Your task to perform on an android device: Turn off the flashlight Image 0: 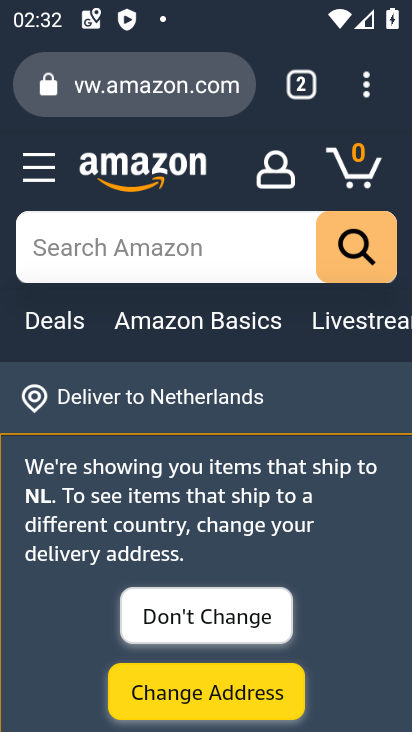
Step 0: press home button
Your task to perform on an android device: Turn off the flashlight Image 1: 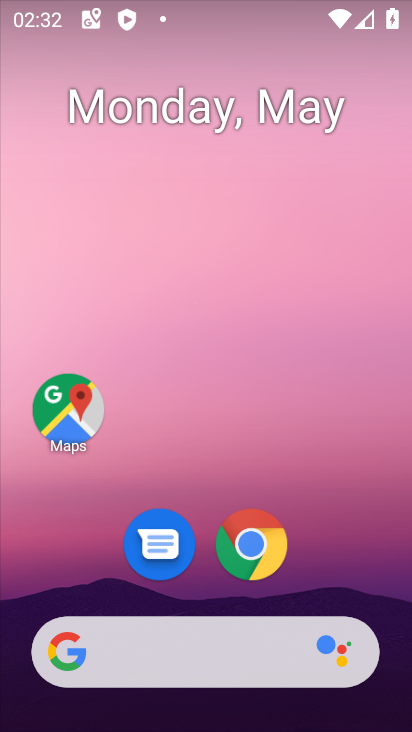
Step 1: drag from (261, 1) to (229, 452)
Your task to perform on an android device: Turn off the flashlight Image 2: 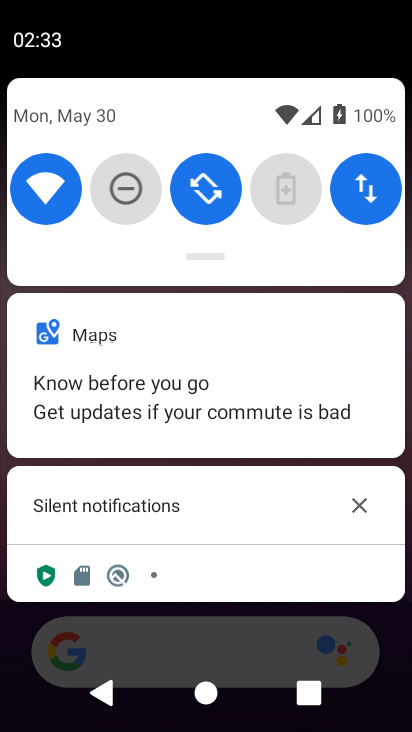
Step 2: drag from (242, 104) to (232, 379)
Your task to perform on an android device: Turn off the flashlight Image 3: 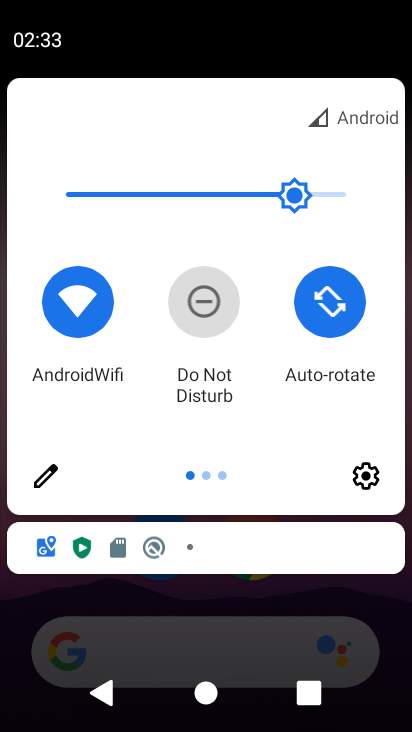
Step 3: click (38, 474)
Your task to perform on an android device: Turn off the flashlight Image 4: 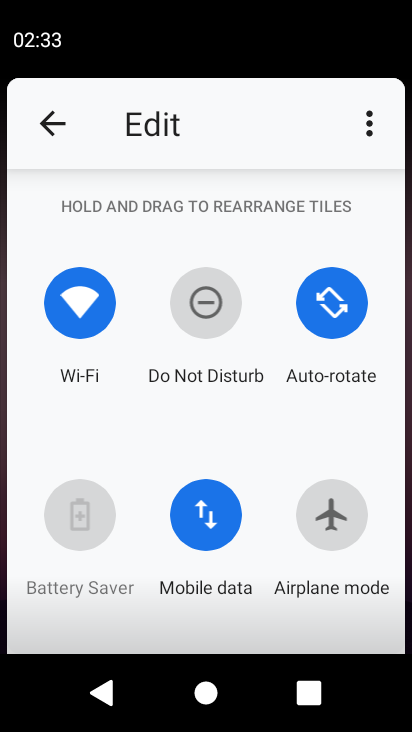
Step 4: task complete